Your task to perform on an android device: What's the weather going to be tomorrow? Image 0: 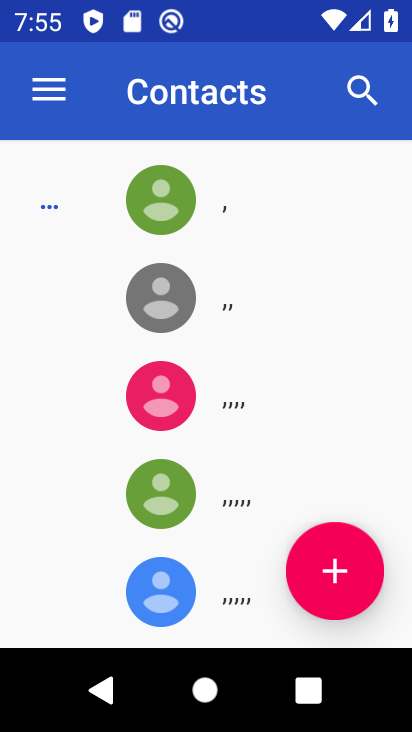
Step 0: press home button
Your task to perform on an android device: What's the weather going to be tomorrow? Image 1: 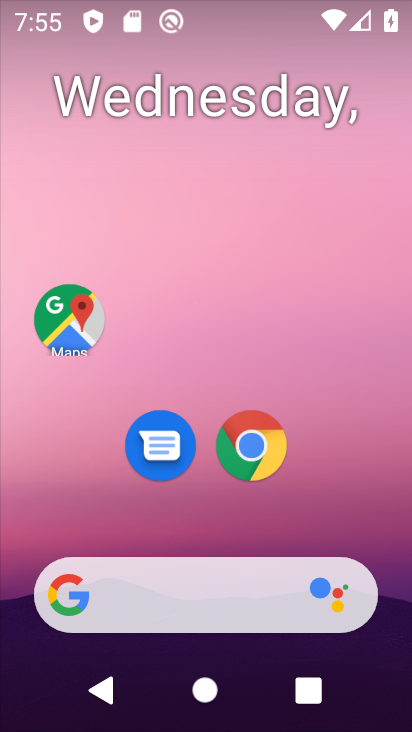
Step 1: click (241, 436)
Your task to perform on an android device: What's the weather going to be tomorrow? Image 2: 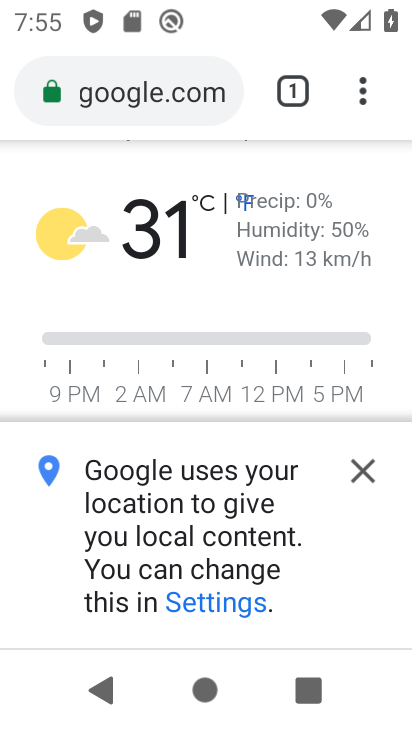
Step 2: click (352, 94)
Your task to perform on an android device: What's the weather going to be tomorrow? Image 3: 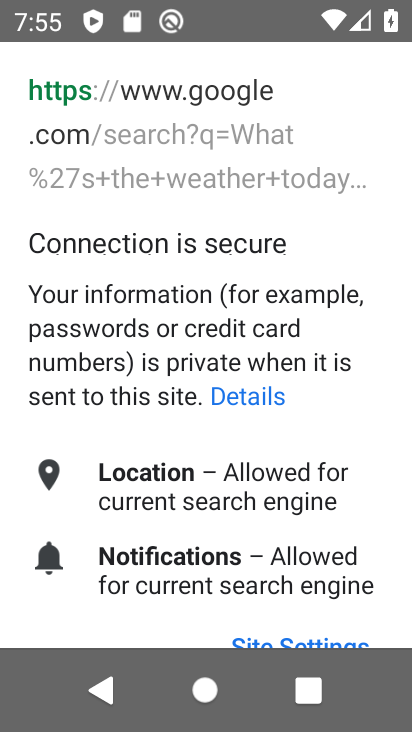
Step 3: press back button
Your task to perform on an android device: What's the weather going to be tomorrow? Image 4: 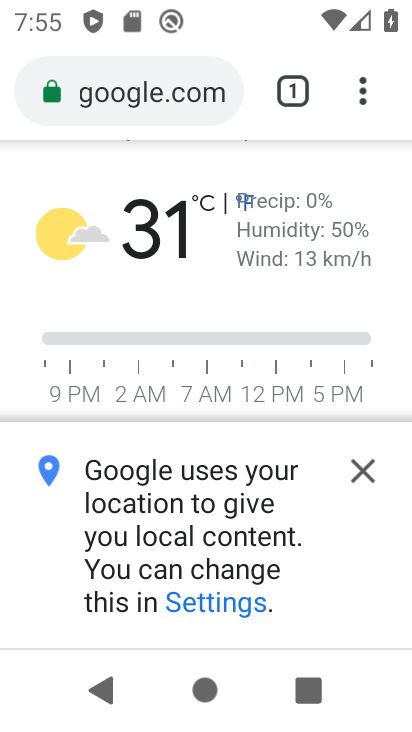
Step 4: click (371, 80)
Your task to perform on an android device: What's the weather going to be tomorrow? Image 5: 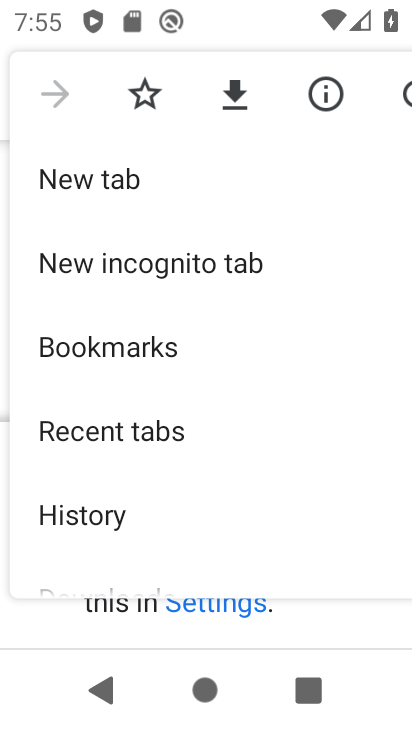
Step 5: click (84, 188)
Your task to perform on an android device: What's the weather going to be tomorrow? Image 6: 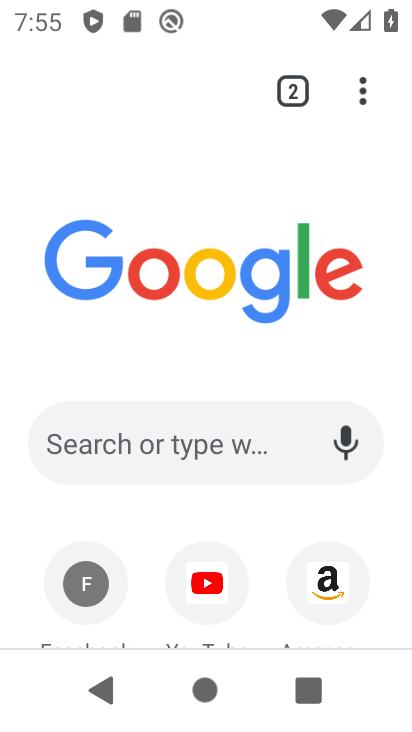
Step 6: click (201, 430)
Your task to perform on an android device: What's the weather going to be tomorrow? Image 7: 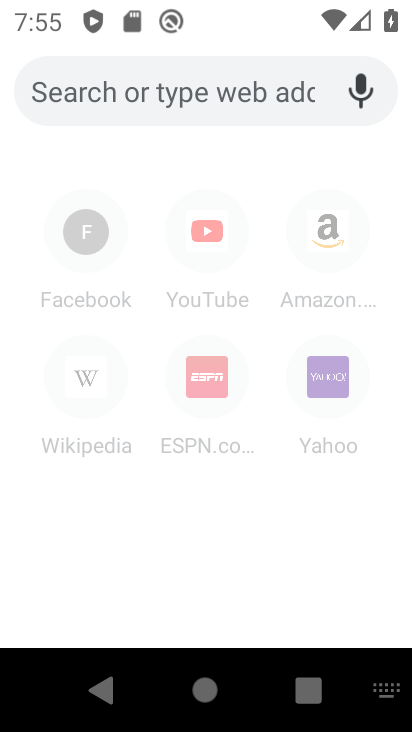
Step 7: type "What's the weather going to be tomorrow?"
Your task to perform on an android device: What's the weather going to be tomorrow? Image 8: 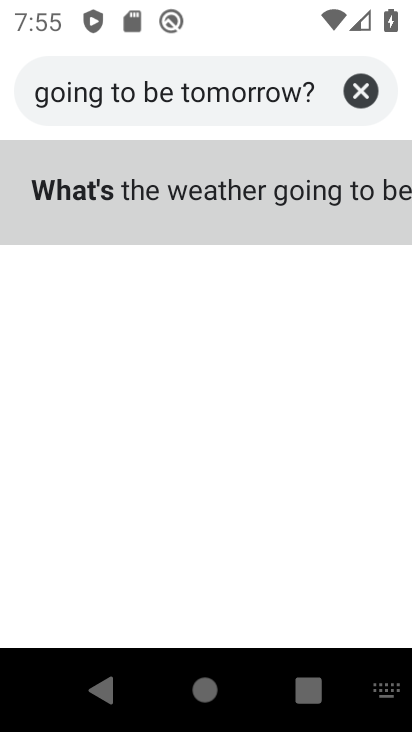
Step 8: click (289, 169)
Your task to perform on an android device: What's the weather going to be tomorrow? Image 9: 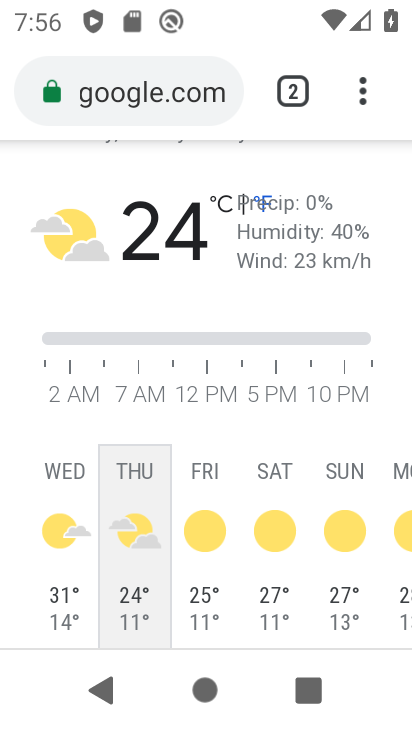
Step 9: task complete